Your task to perform on an android device: allow cookies in the chrome app Image 0: 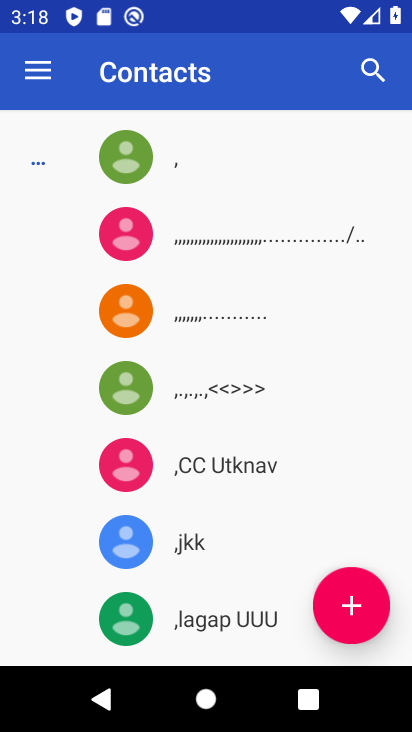
Step 0: press home button
Your task to perform on an android device: allow cookies in the chrome app Image 1: 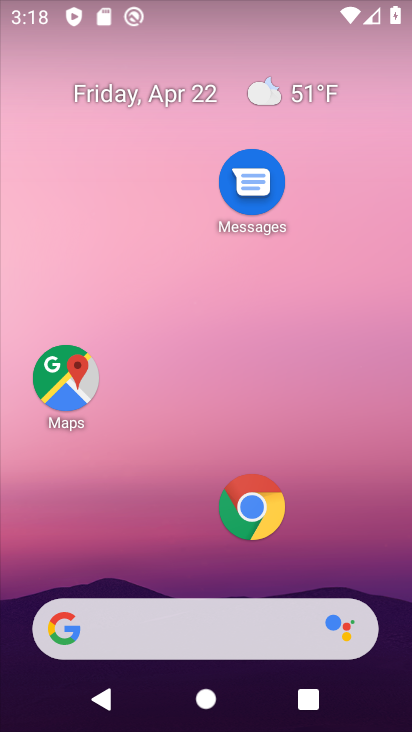
Step 1: drag from (137, 630) to (297, 129)
Your task to perform on an android device: allow cookies in the chrome app Image 2: 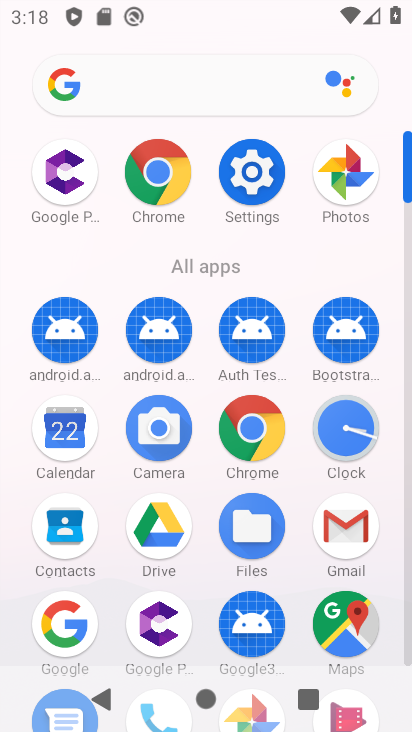
Step 2: click (167, 187)
Your task to perform on an android device: allow cookies in the chrome app Image 3: 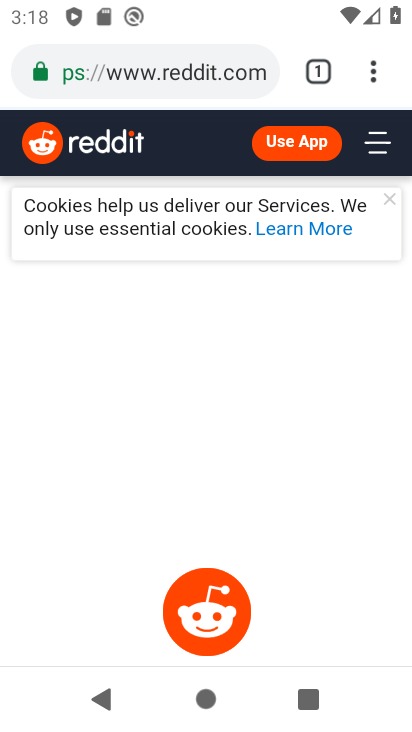
Step 3: drag from (374, 74) to (148, 500)
Your task to perform on an android device: allow cookies in the chrome app Image 4: 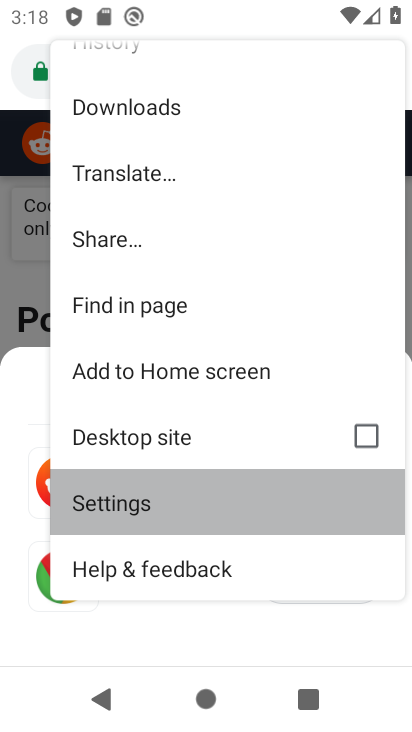
Step 4: click (148, 500)
Your task to perform on an android device: allow cookies in the chrome app Image 5: 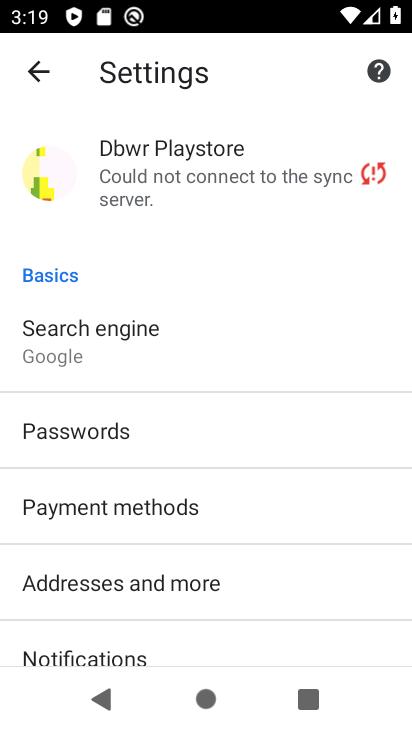
Step 5: drag from (116, 592) to (255, 190)
Your task to perform on an android device: allow cookies in the chrome app Image 6: 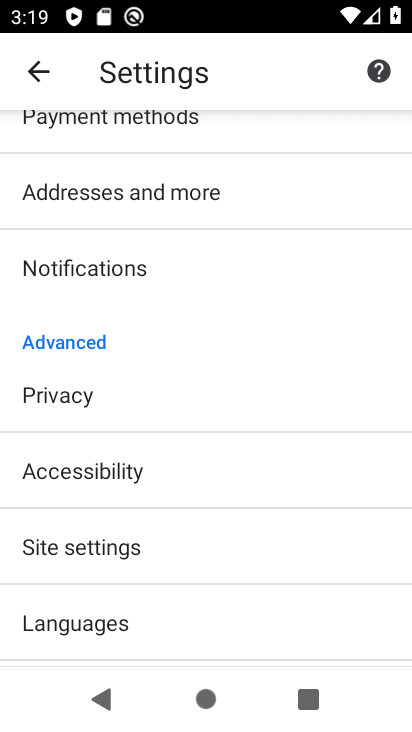
Step 6: click (114, 552)
Your task to perform on an android device: allow cookies in the chrome app Image 7: 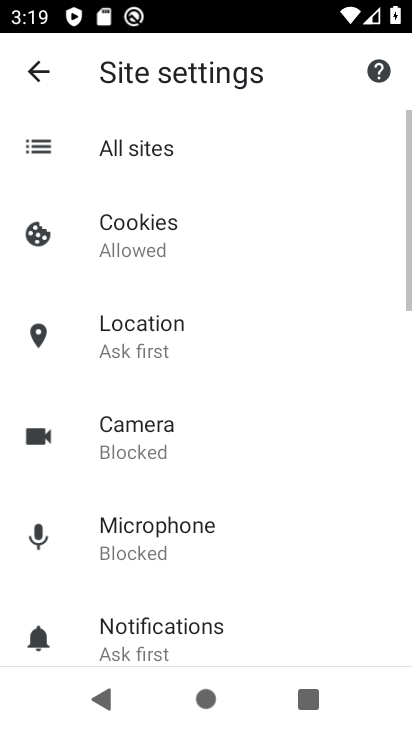
Step 7: click (133, 230)
Your task to perform on an android device: allow cookies in the chrome app Image 8: 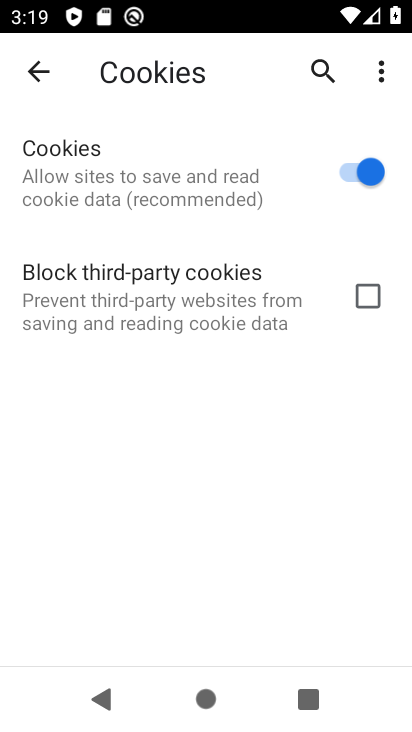
Step 8: task complete